Your task to perform on an android device: Go to network settings Image 0: 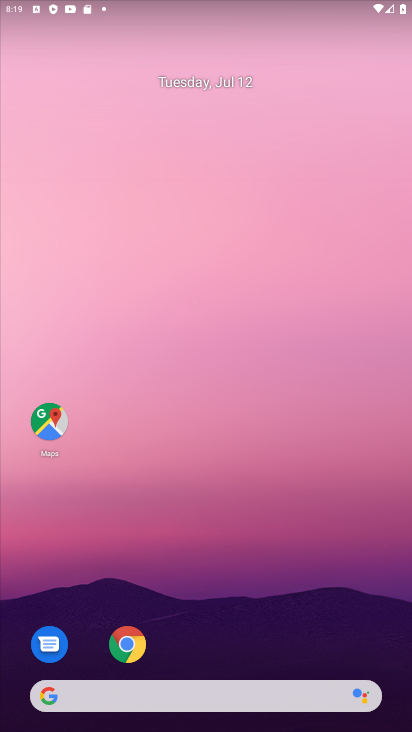
Step 0: drag from (379, 637) to (342, 37)
Your task to perform on an android device: Go to network settings Image 1: 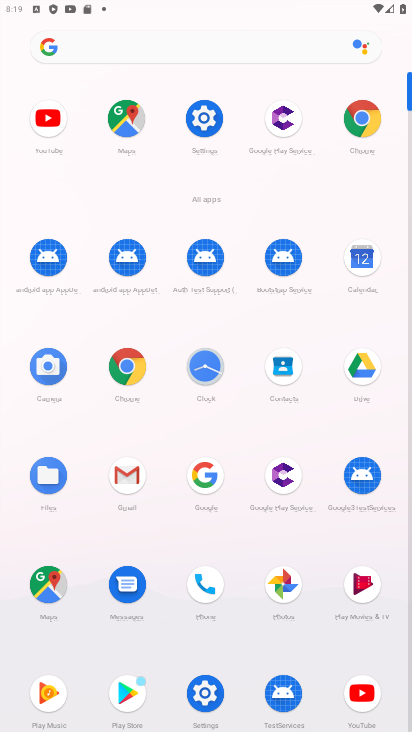
Step 1: click (203, 693)
Your task to perform on an android device: Go to network settings Image 2: 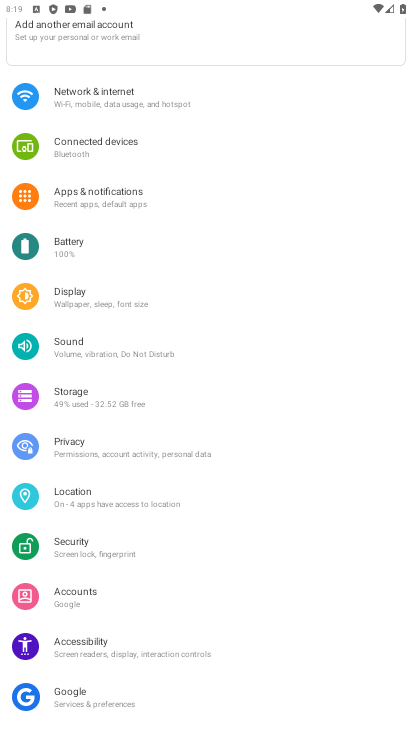
Step 2: click (81, 104)
Your task to perform on an android device: Go to network settings Image 3: 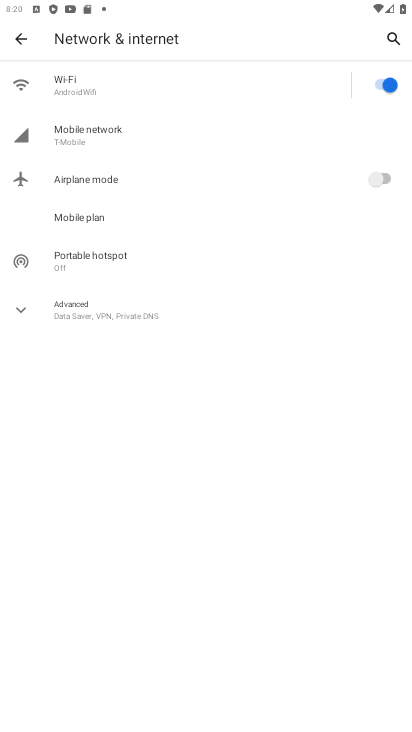
Step 3: click (77, 134)
Your task to perform on an android device: Go to network settings Image 4: 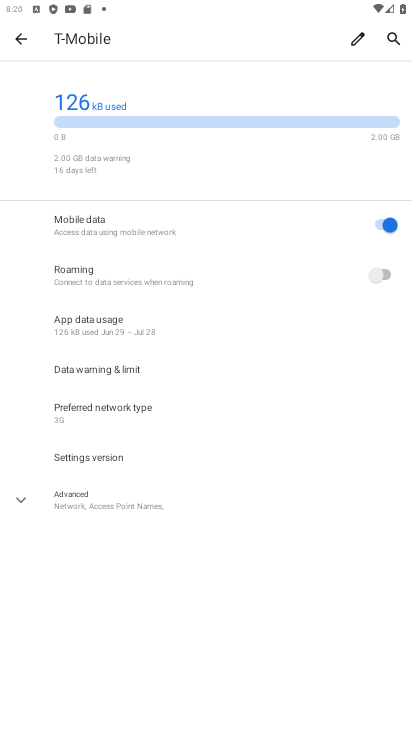
Step 4: click (29, 504)
Your task to perform on an android device: Go to network settings Image 5: 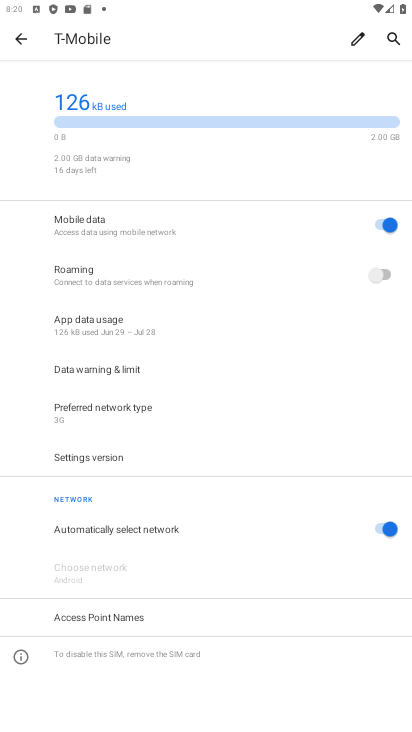
Step 5: task complete